Your task to perform on an android device: add a contact Image 0: 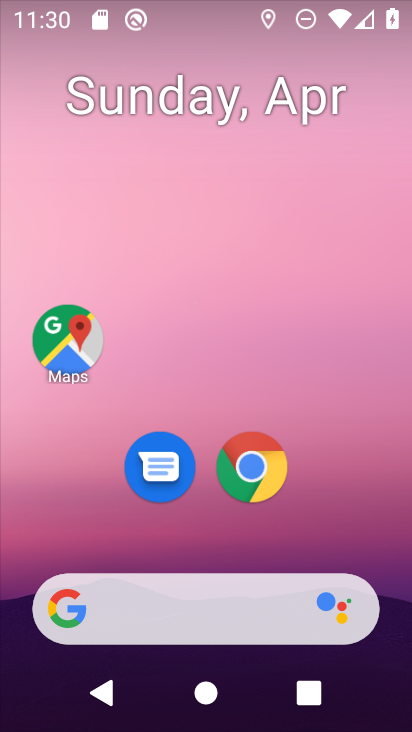
Step 0: press home button
Your task to perform on an android device: add a contact Image 1: 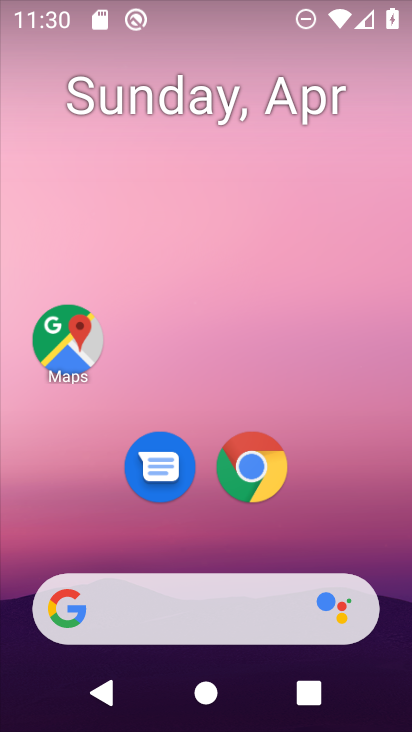
Step 1: drag from (353, 523) to (353, 138)
Your task to perform on an android device: add a contact Image 2: 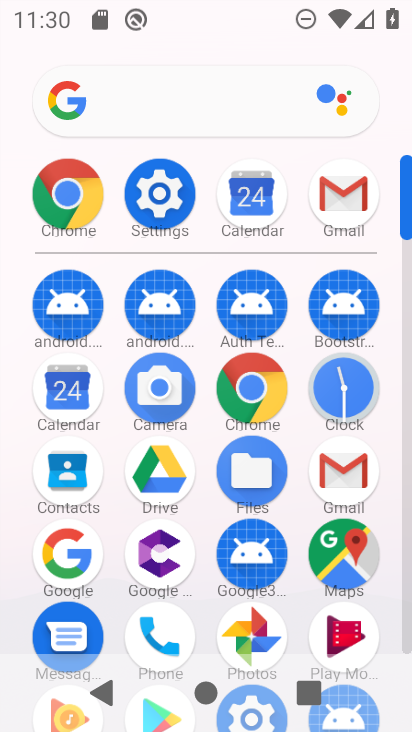
Step 2: click (72, 483)
Your task to perform on an android device: add a contact Image 3: 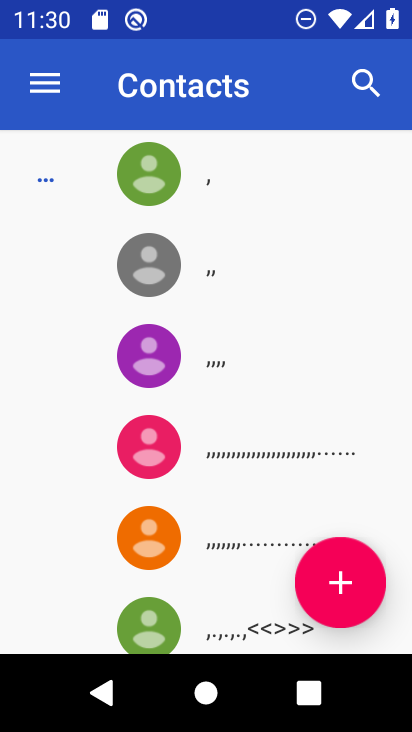
Step 3: click (365, 580)
Your task to perform on an android device: add a contact Image 4: 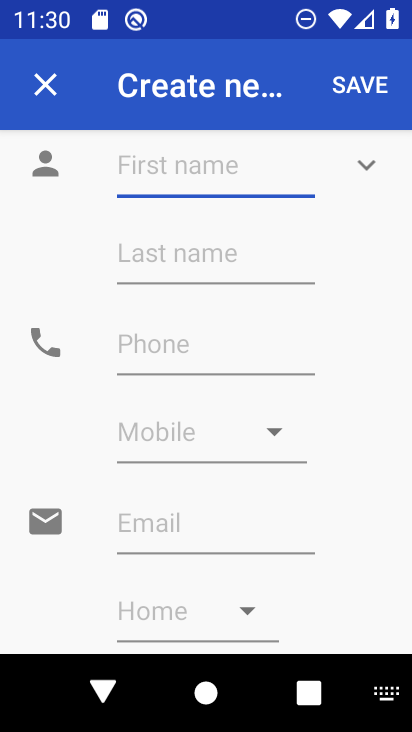
Step 4: type "my name"
Your task to perform on an android device: add a contact Image 5: 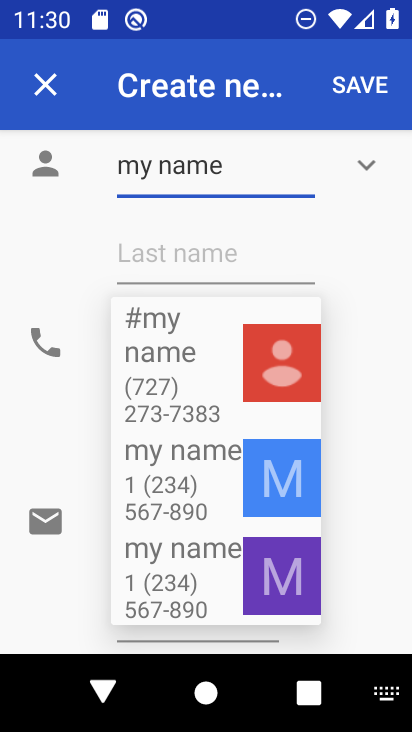
Step 5: click (389, 345)
Your task to perform on an android device: add a contact Image 6: 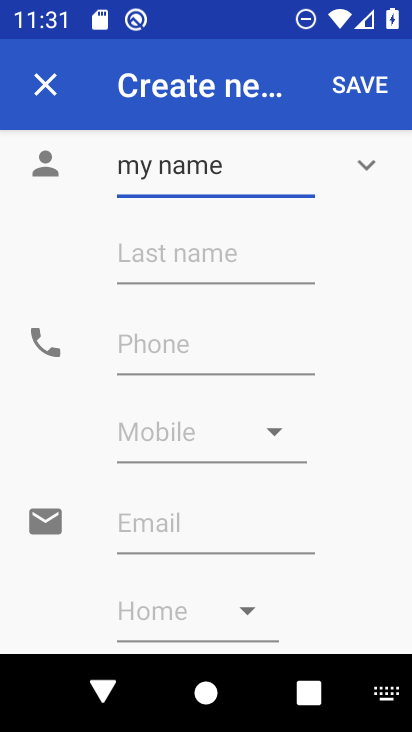
Step 6: click (201, 349)
Your task to perform on an android device: add a contact Image 7: 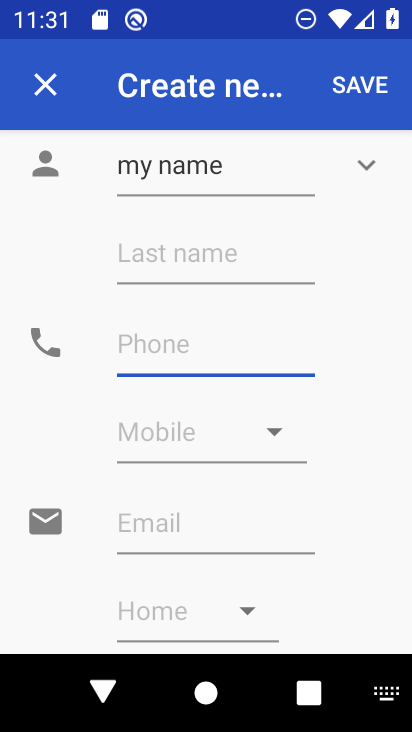
Step 7: type "123456789"
Your task to perform on an android device: add a contact Image 8: 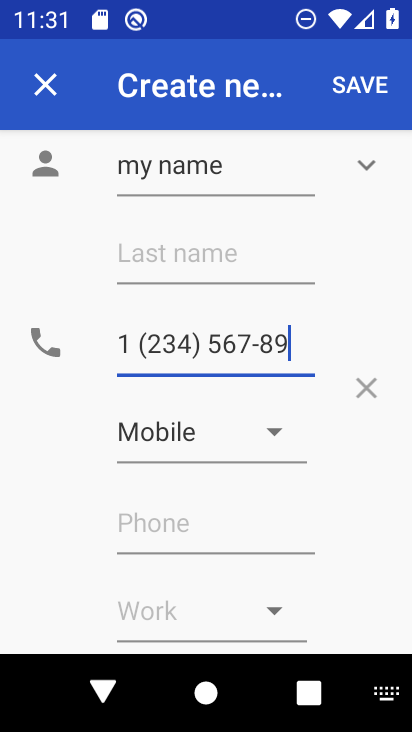
Step 8: click (381, 87)
Your task to perform on an android device: add a contact Image 9: 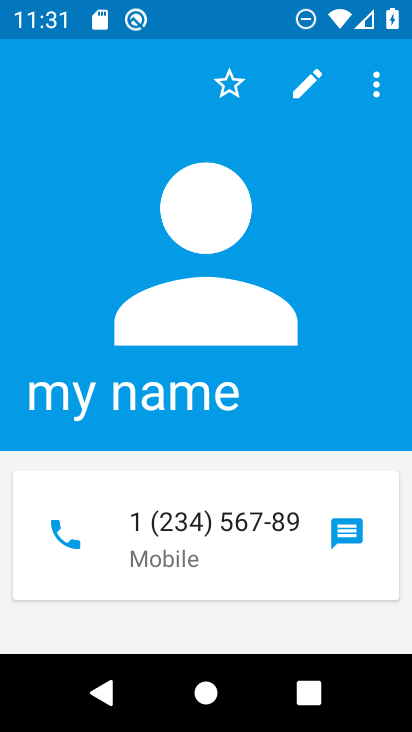
Step 9: task complete